Your task to perform on an android device: add a contact Image 0: 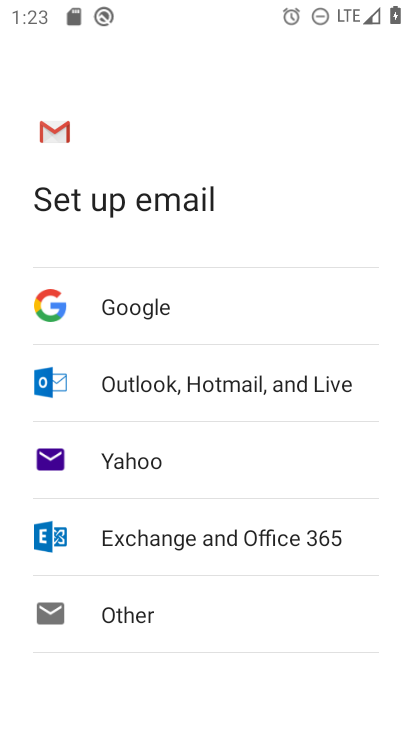
Step 0: press home button
Your task to perform on an android device: add a contact Image 1: 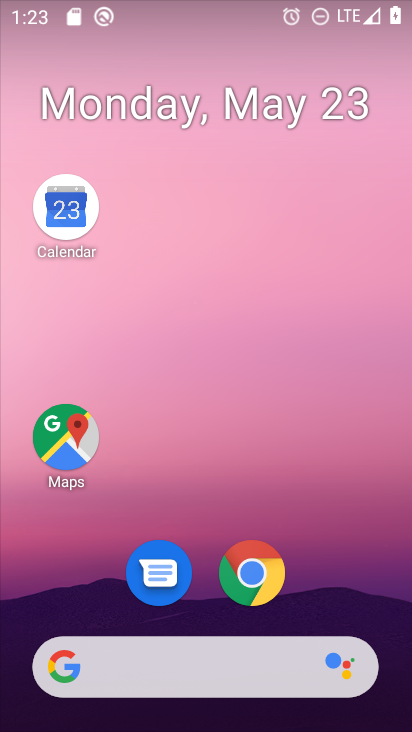
Step 1: drag from (318, 611) to (360, 72)
Your task to perform on an android device: add a contact Image 2: 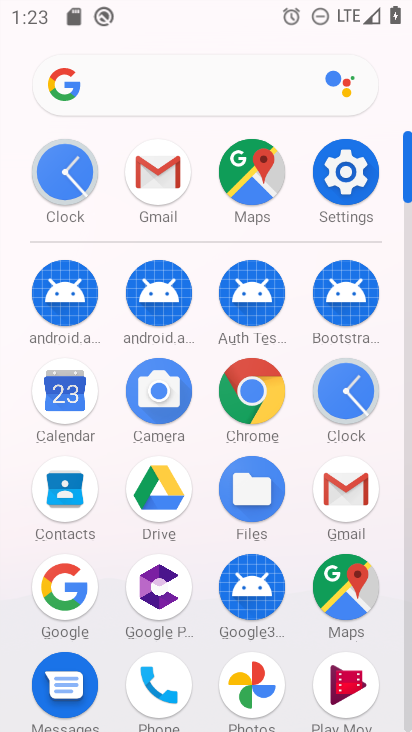
Step 2: click (59, 514)
Your task to perform on an android device: add a contact Image 3: 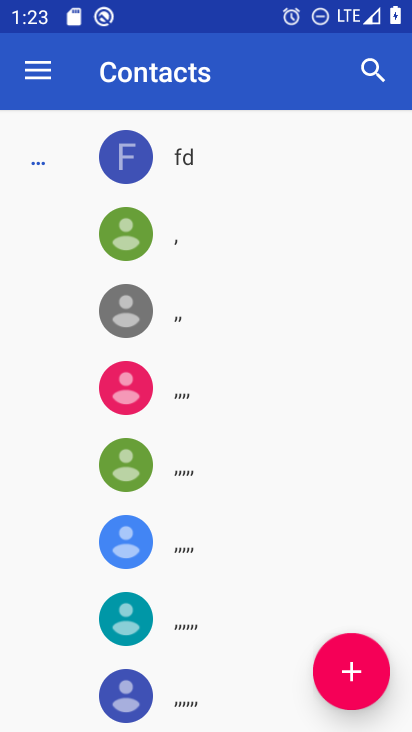
Step 3: click (357, 672)
Your task to perform on an android device: add a contact Image 4: 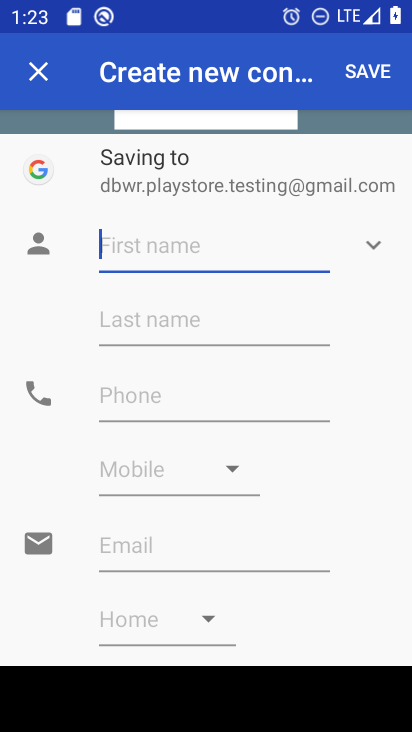
Step 4: type "pioouwuyetw"
Your task to perform on an android device: add a contact Image 5: 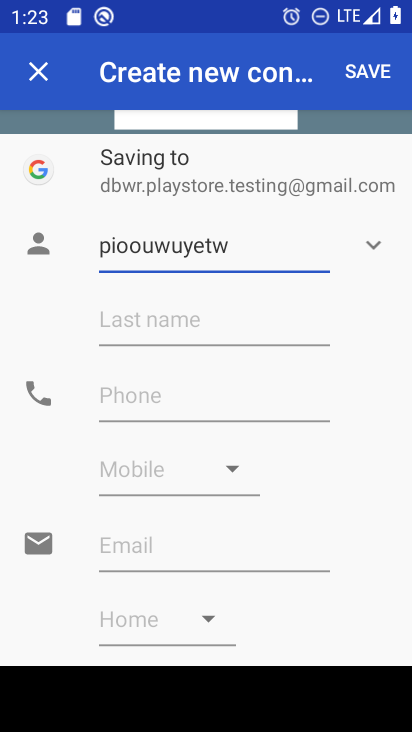
Step 5: click (154, 408)
Your task to perform on an android device: add a contact Image 6: 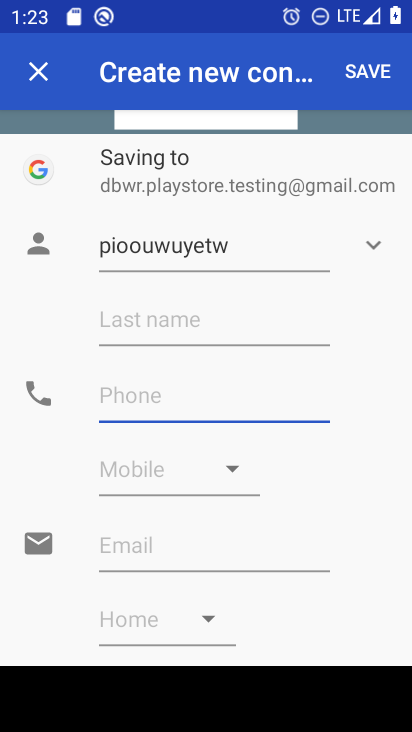
Step 6: type "23445678900"
Your task to perform on an android device: add a contact Image 7: 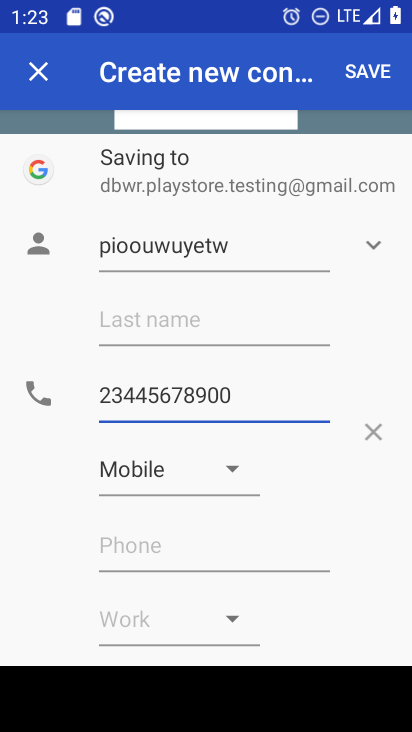
Step 7: click (363, 63)
Your task to perform on an android device: add a contact Image 8: 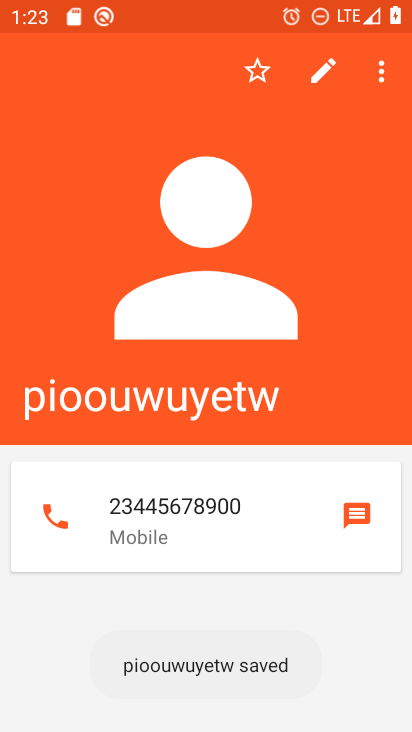
Step 8: task complete